Your task to perform on an android device: allow cookies in the chrome app Image 0: 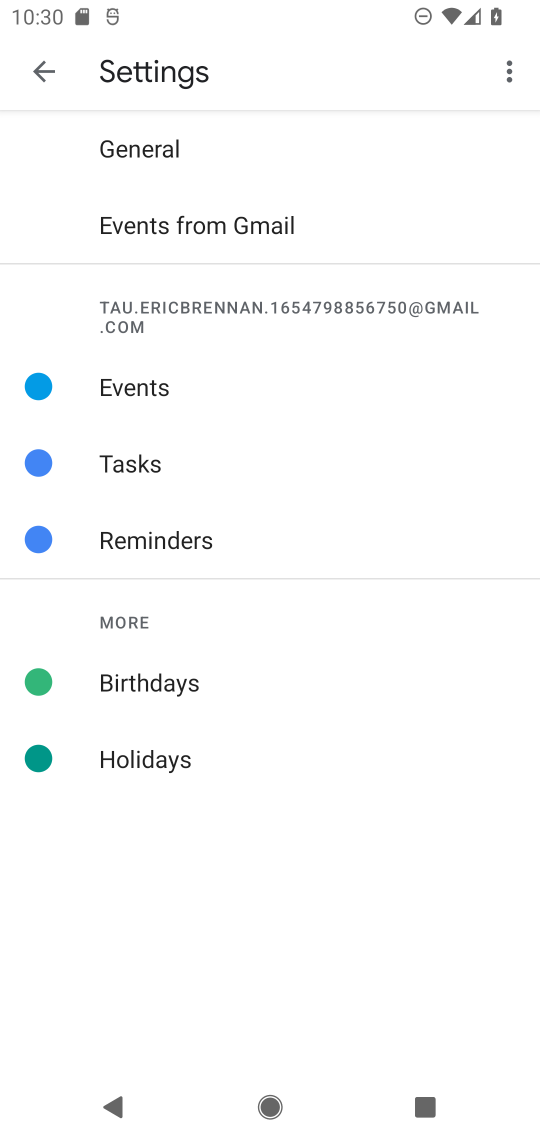
Step 0: press home button
Your task to perform on an android device: allow cookies in the chrome app Image 1: 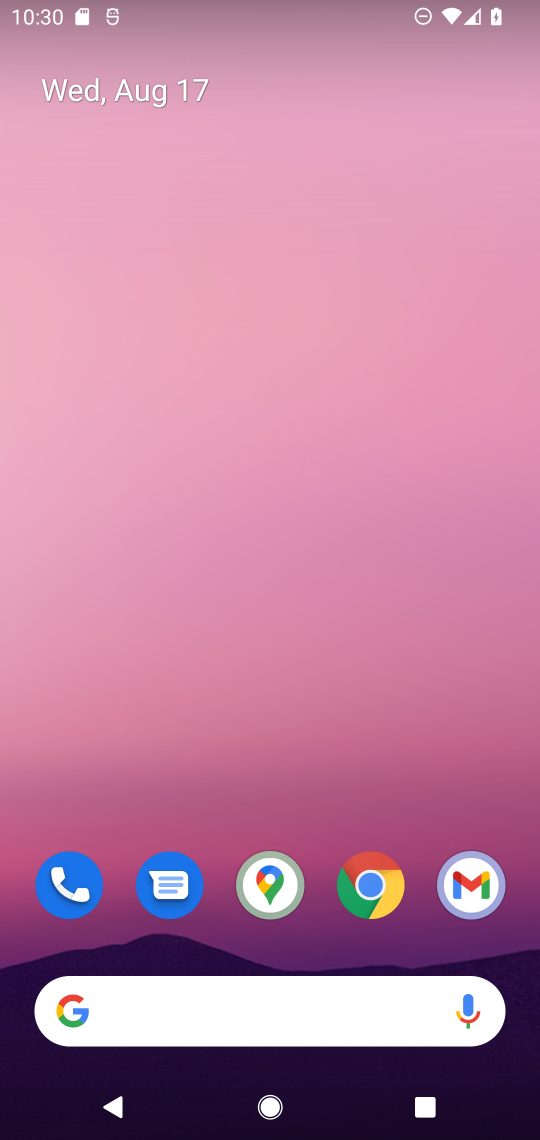
Step 1: click (366, 882)
Your task to perform on an android device: allow cookies in the chrome app Image 2: 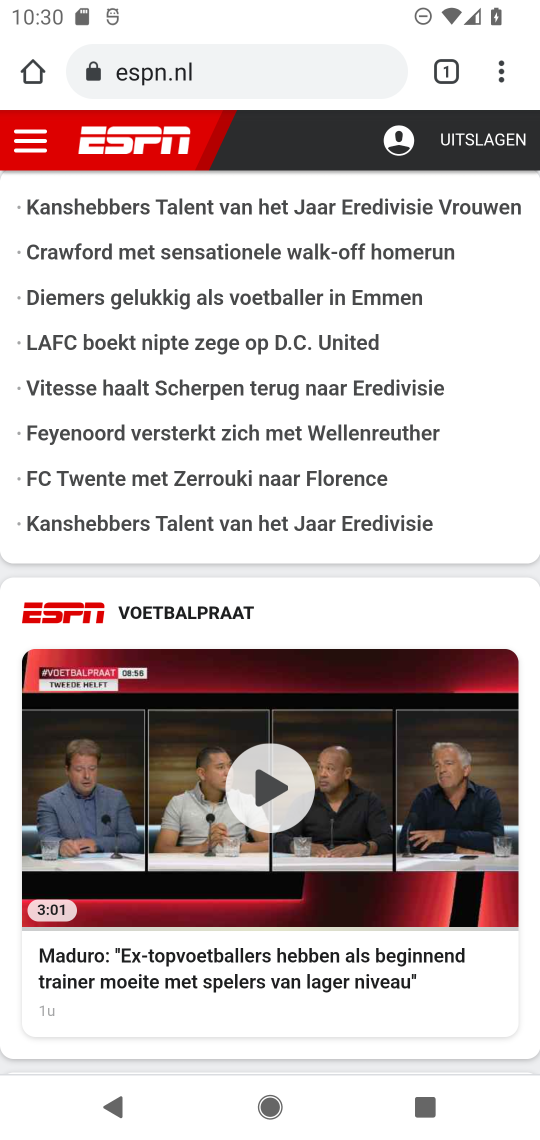
Step 2: click (496, 78)
Your task to perform on an android device: allow cookies in the chrome app Image 3: 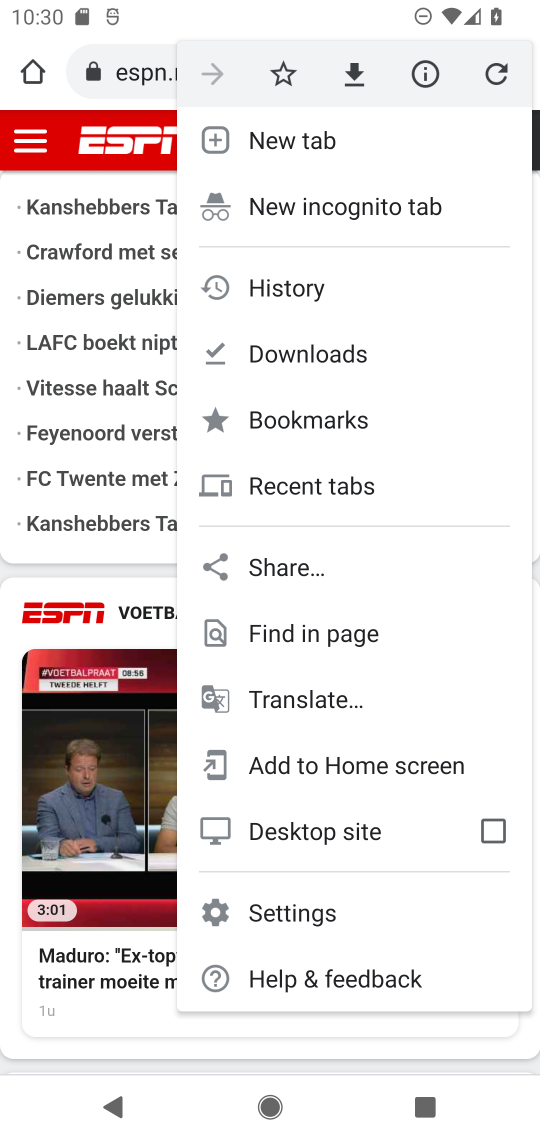
Step 3: click (295, 926)
Your task to perform on an android device: allow cookies in the chrome app Image 4: 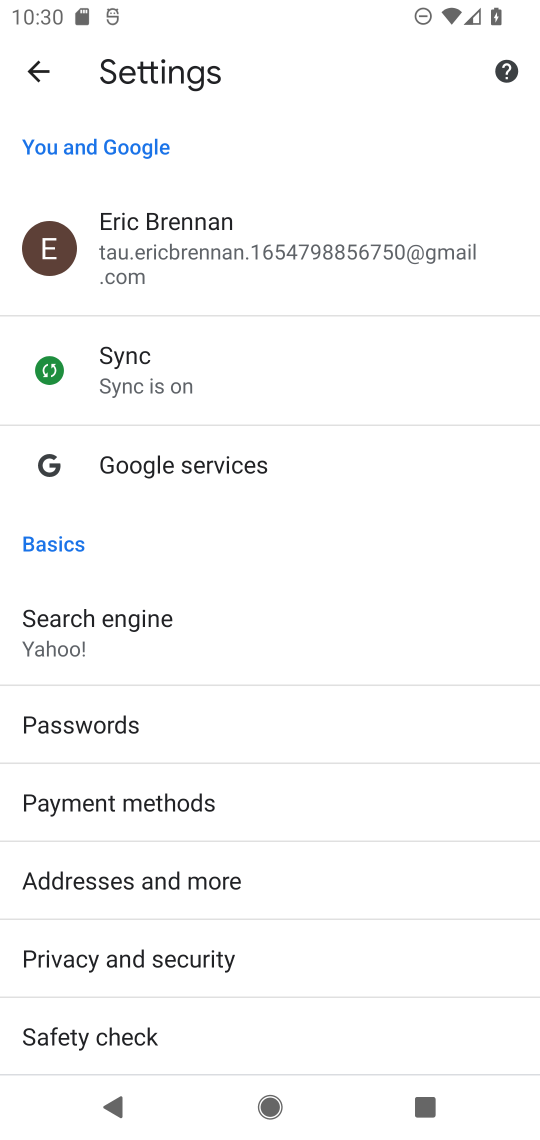
Step 4: drag from (295, 926) to (340, 276)
Your task to perform on an android device: allow cookies in the chrome app Image 5: 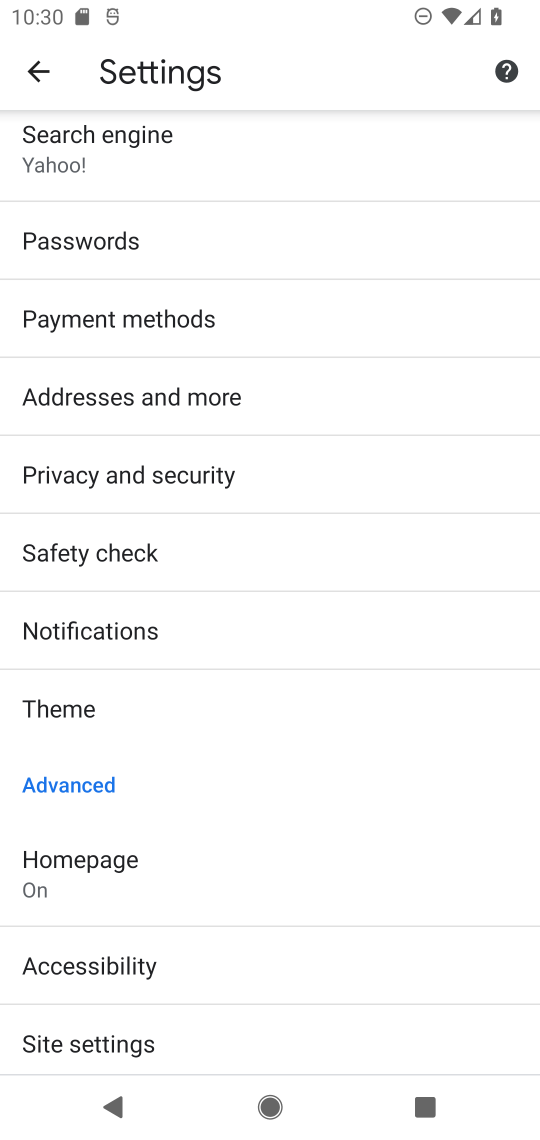
Step 5: drag from (297, 974) to (308, 400)
Your task to perform on an android device: allow cookies in the chrome app Image 6: 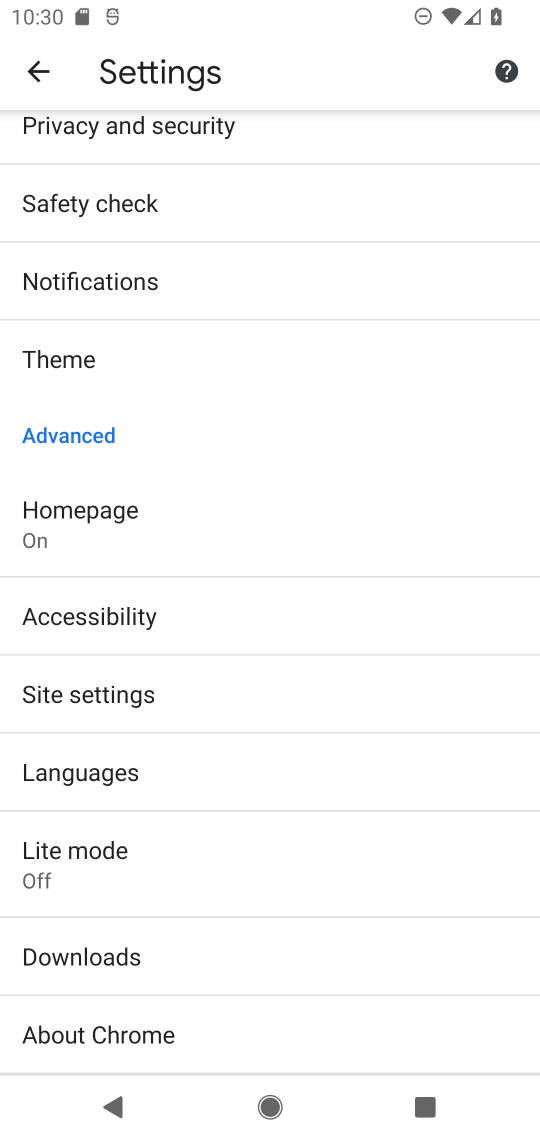
Step 6: click (94, 705)
Your task to perform on an android device: allow cookies in the chrome app Image 7: 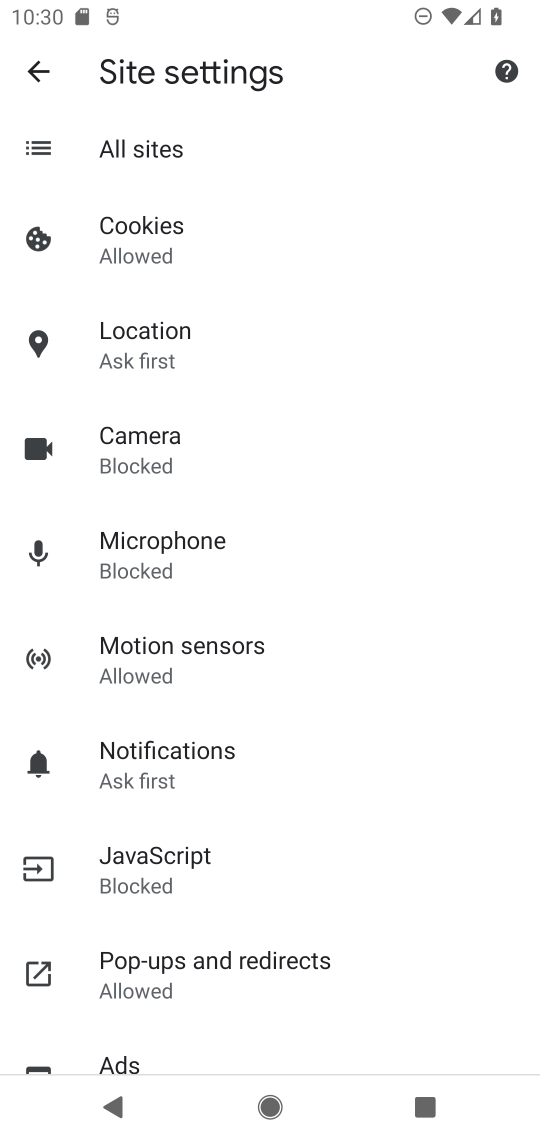
Step 7: click (139, 239)
Your task to perform on an android device: allow cookies in the chrome app Image 8: 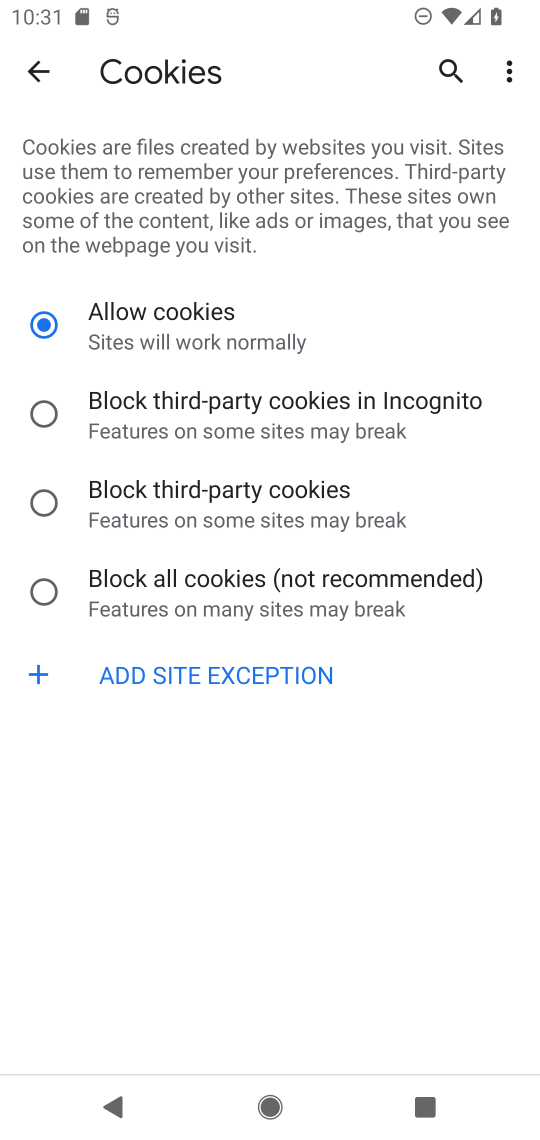
Step 8: task complete